Your task to perform on an android device: Search for seafood restaurants on Google Maps Image 0: 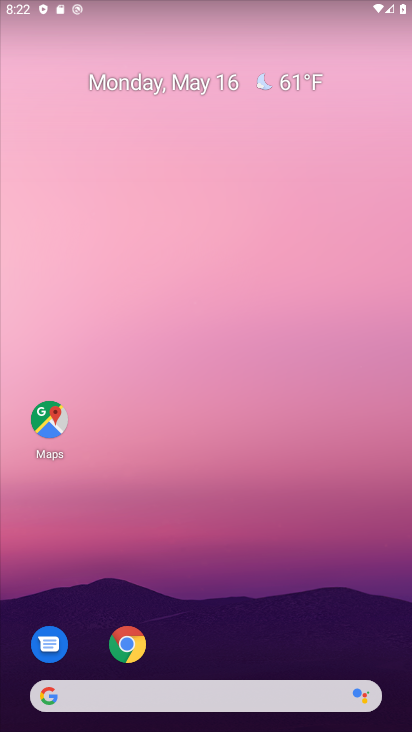
Step 0: drag from (249, 456) to (247, 314)
Your task to perform on an android device: Search for seafood restaurants on Google Maps Image 1: 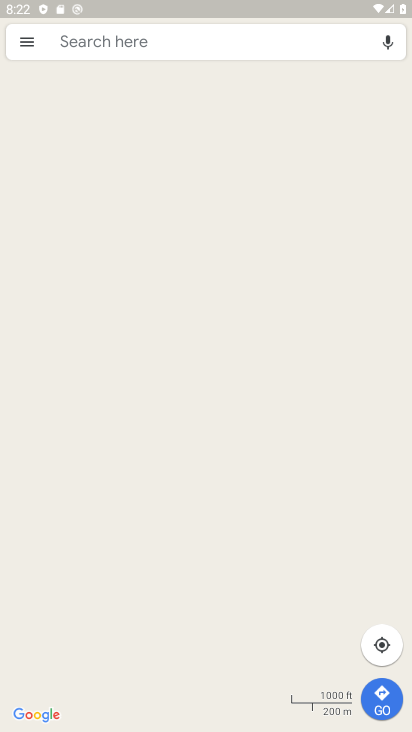
Step 1: press home button
Your task to perform on an android device: Search for seafood restaurants on Google Maps Image 2: 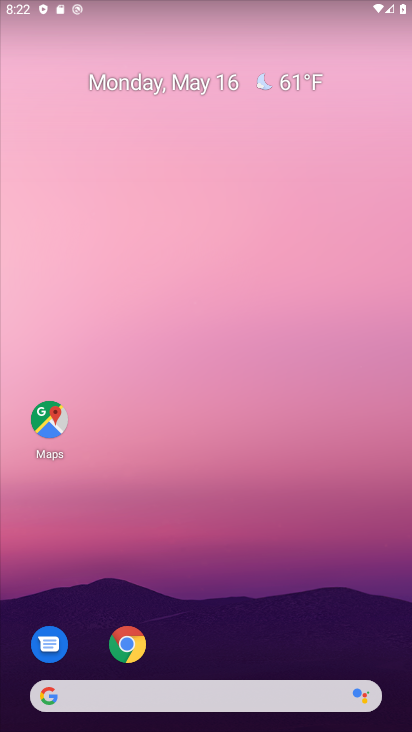
Step 2: click (46, 423)
Your task to perform on an android device: Search for seafood restaurants on Google Maps Image 3: 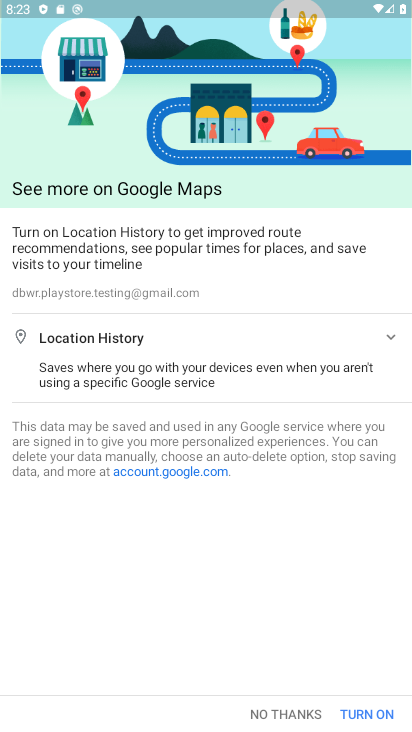
Step 3: click (275, 715)
Your task to perform on an android device: Search for seafood restaurants on Google Maps Image 4: 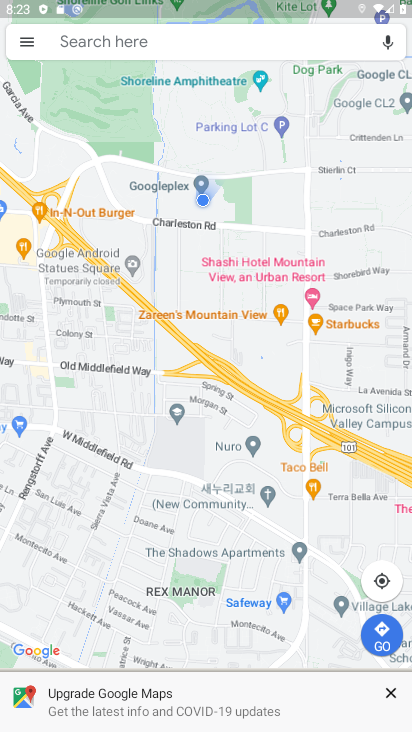
Step 4: click (170, 41)
Your task to perform on an android device: Search for seafood restaurants on Google Maps Image 5: 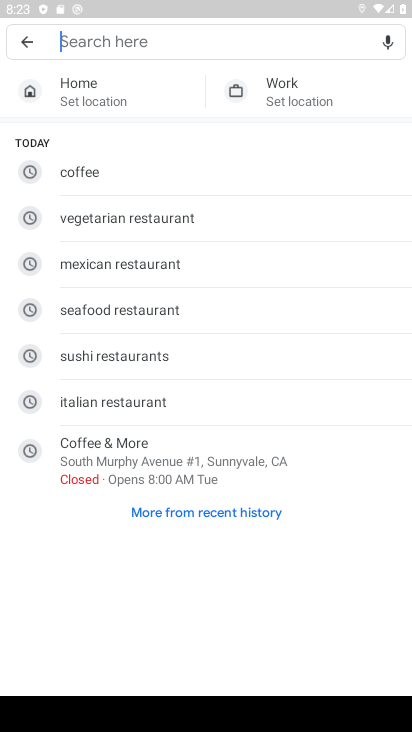
Step 5: click (142, 308)
Your task to perform on an android device: Search for seafood restaurants on Google Maps Image 6: 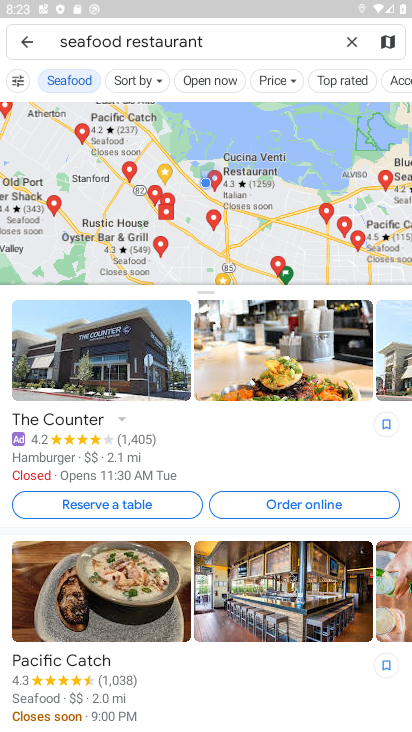
Step 6: task complete